Your task to perform on an android device: open a new tab in the chrome app Image 0: 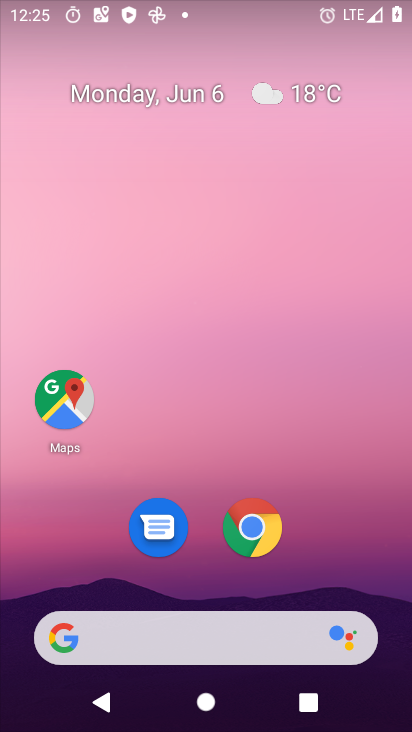
Step 0: click (270, 512)
Your task to perform on an android device: open a new tab in the chrome app Image 1: 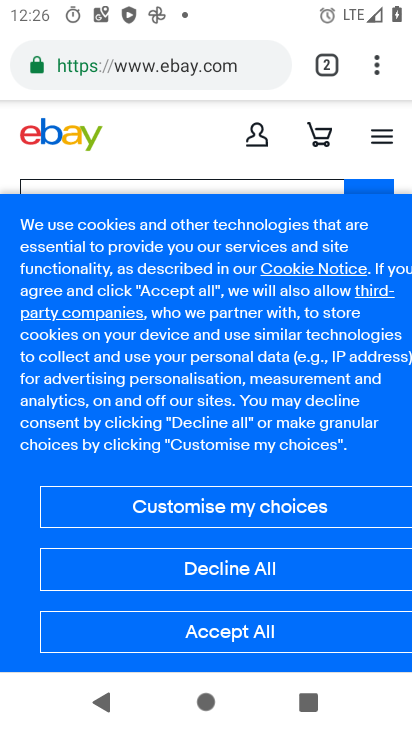
Step 1: click (382, 61)
Your task to perform on an android device: open a new tab in the chrome app Image 2: 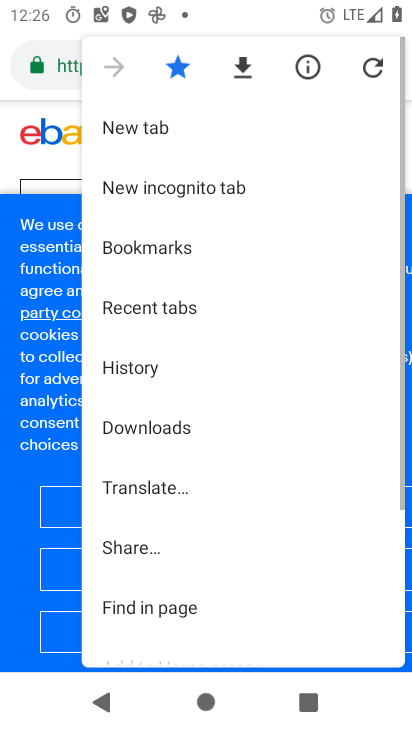
Step 2: click (184, 125)
Your task to perform on an android device: open a new tab in the chrome app Image 3: 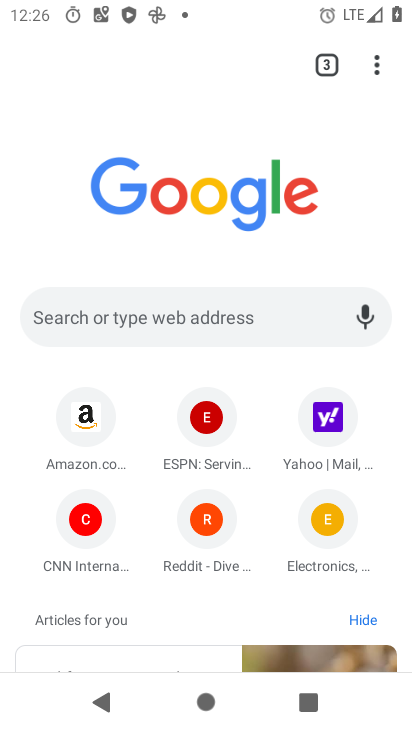
Step 3: task complete